Your task to perform on an android device: Open Android settings Image 0: 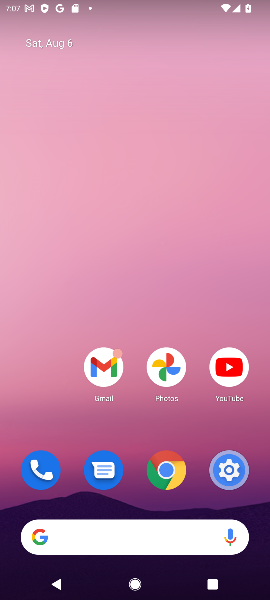
Step 0: drag from (105, 516) to (195, 160)
Your task to perform on an android device: Open Android settings Image 1: 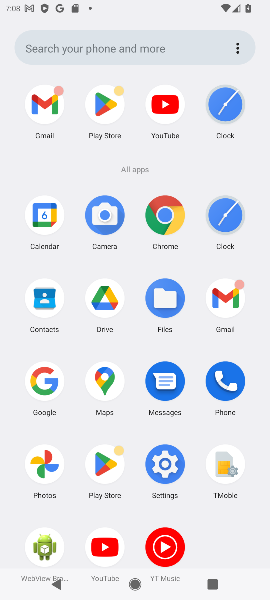
Step 1: click (166, 472)
Your task to perform on an android device: Open Android settings Image 2: 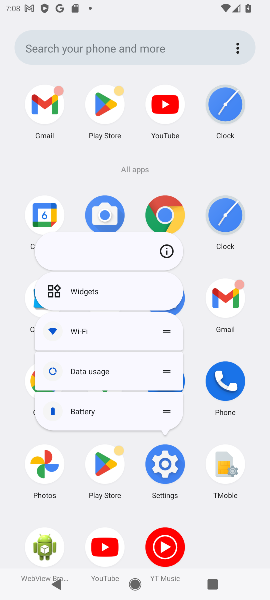
Step 2: click (175, 481)
Your task to perform on an android device: Open Android settings Image 3: 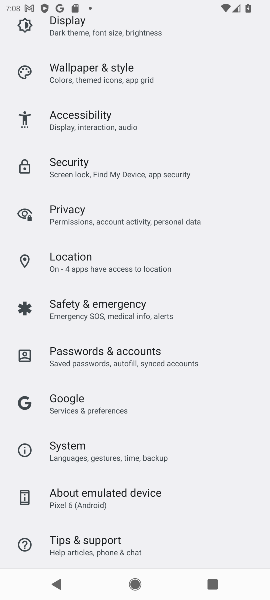
Step 3: drag from (128, 450) to (148, 188)
Your task to perform on an android device: Open Android settings Image 4: 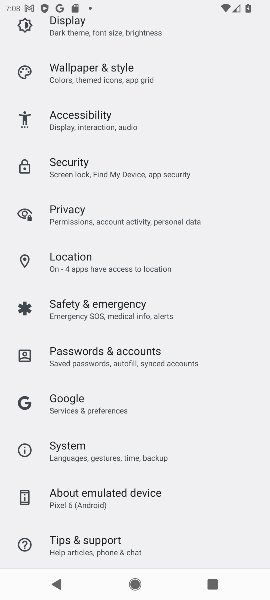
Step 4: click (105, 497)
Your task to perform on an android device: Open Android settings Image 5: 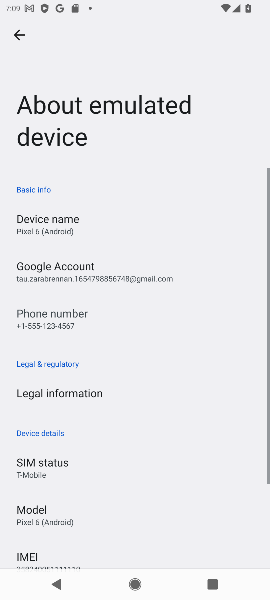
Step 5: drag from (92, 468) to (116, 241)
Your task to perform on an android device: Open Android settings Image 6: 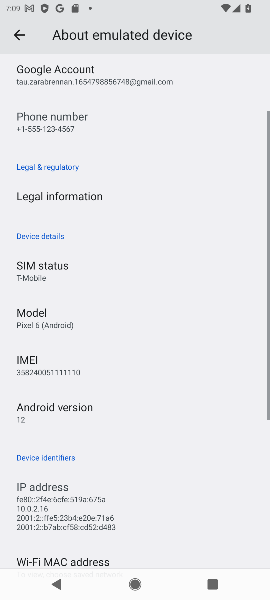
Step 6: drag from (89, 339) to (111, 103)
Your task to perform on an android device: Open Android settings Image 7: 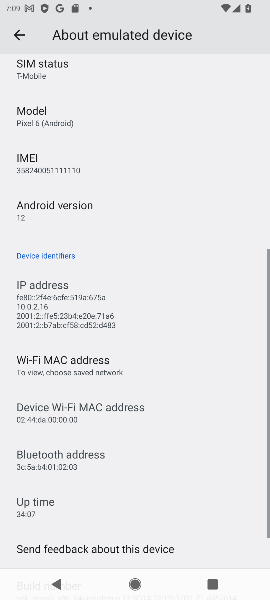
Step 7: click (98, 220)
Your task to perform on an android device: Open Android settings Image 8: 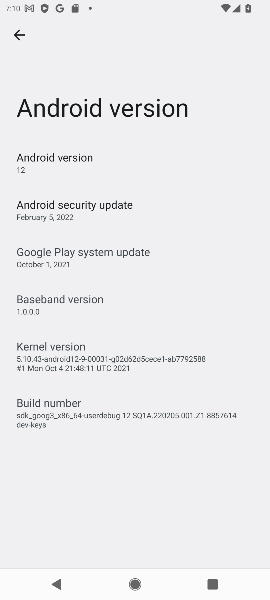
Step 8: task complete